Your task to perform on an android device: star an email in the gmail app Image 0: 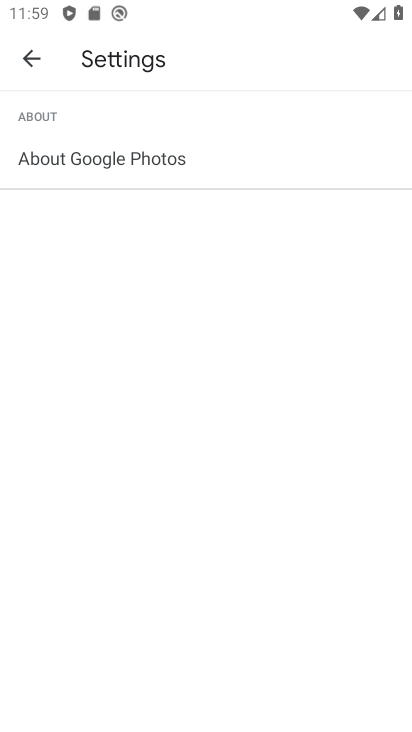
Step 0: press back button
Your task to perform on an android device: star an email in the gmail app Image 1: 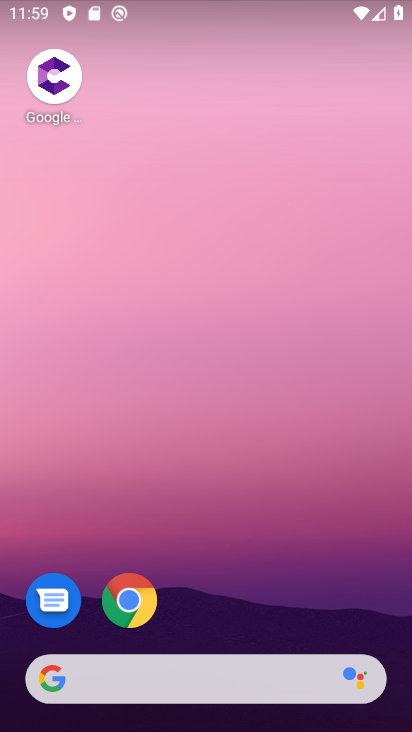
Step 1: drag from (313, 587) to (251, 64)
Your task to perform on an android device: star an email in the gmail app Image 2: 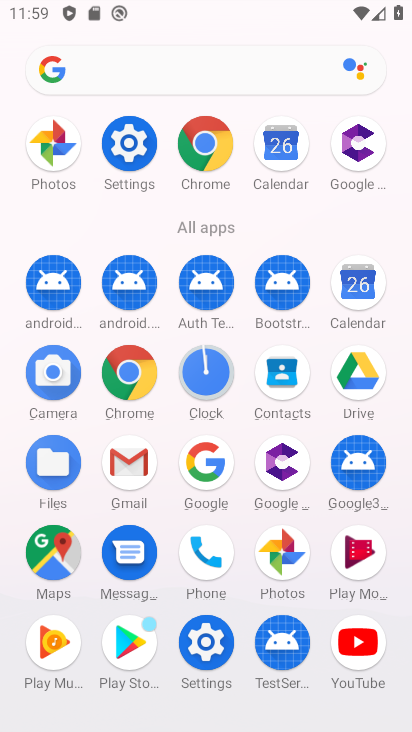
Step 2: drag from (11, 610) to (11, 256)
Your task to perform on an android device: star an email in the gmail app Image 3: 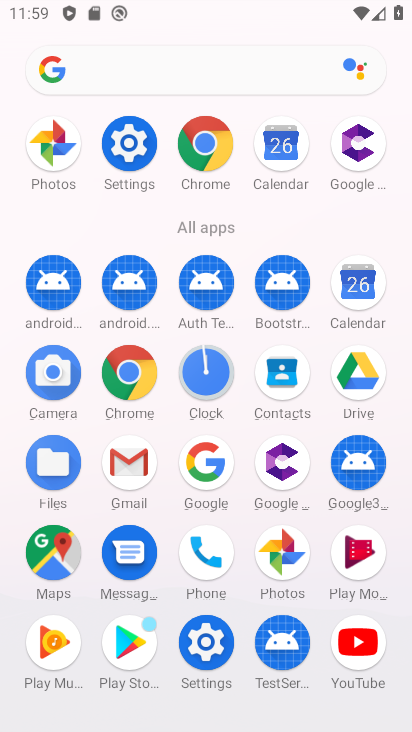
Step 3: click (135, 455)
Your task to perform on an android device: star an email in the gmail app Image 4: 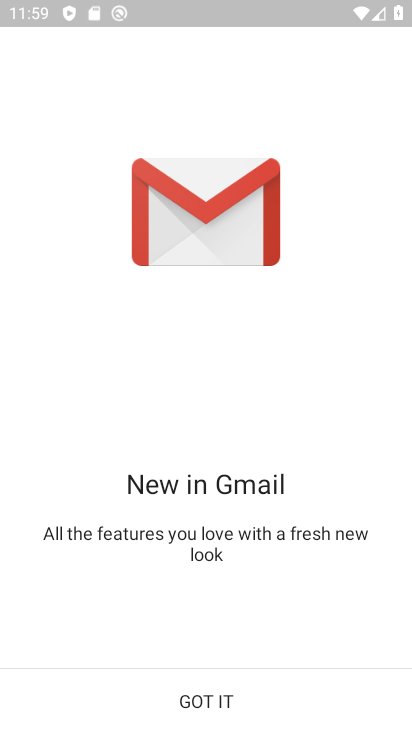
Step 4: click (232, 685)
Your task to perform on an android device: star an email in the gmail app Image 5: 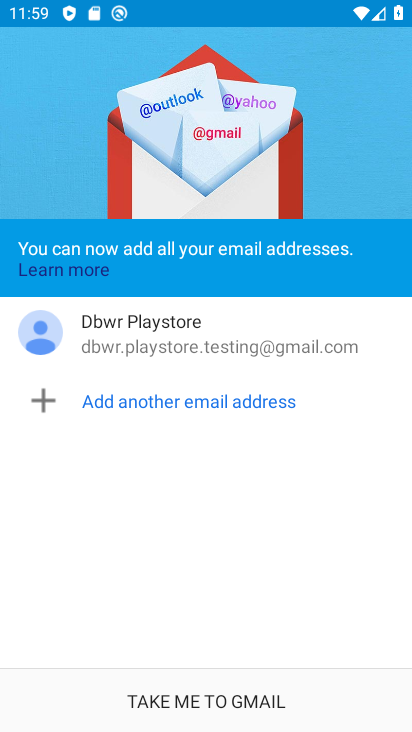
Step 5: click (220, 695)
Your task to perform on an android device: star an email in the gmail app Image 6: 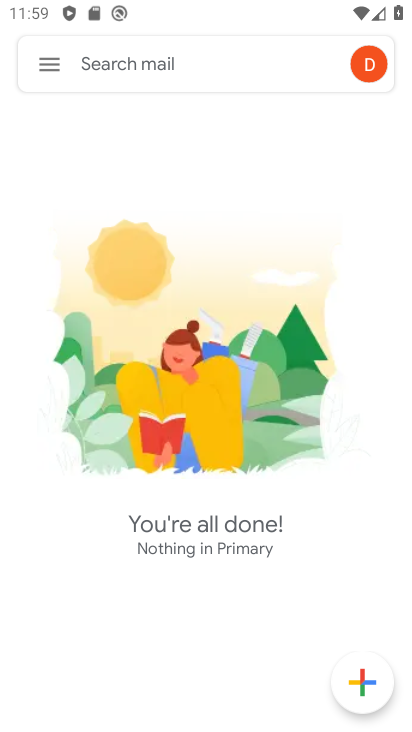
Step 6: click (43, 58)
Your task to perform on an android device: star an email in the gmail app Image 7: 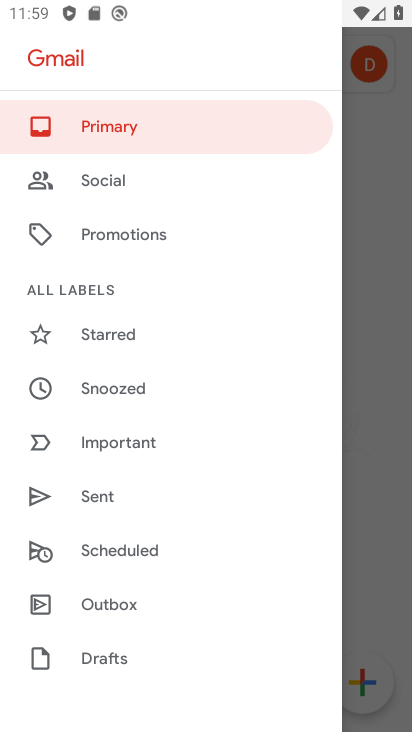
Step 7: click (106, 329)
Your task to perform on an android device: star an email in the gmail app Image 8: 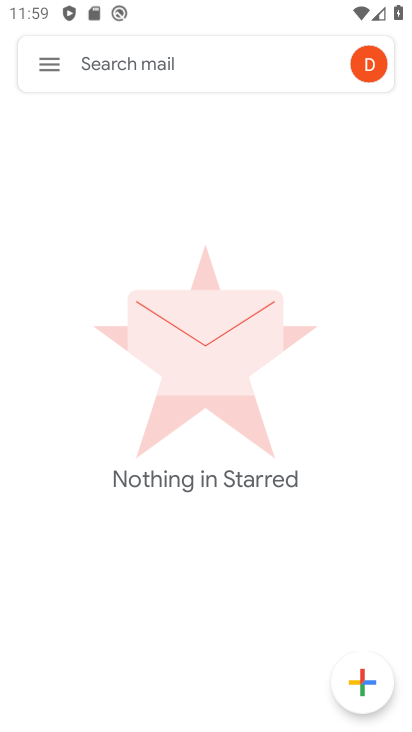
Step 8: task complete